Your task to perform on an android device: install app "Google Play Games" Image 0: 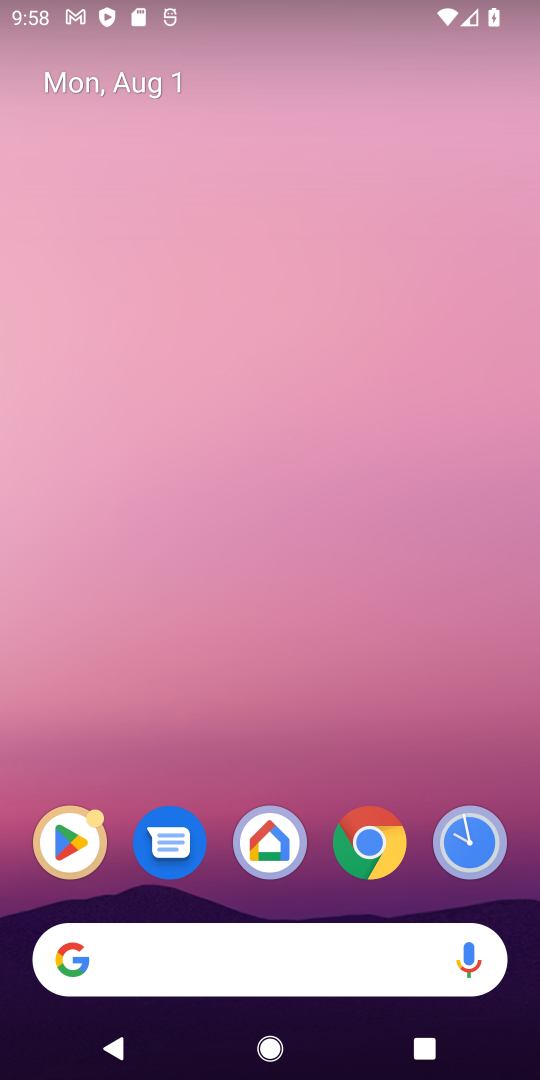
Step 0: click (62, 854)
Your task to perform on an android device: install app "Google Play Games" Image 1: 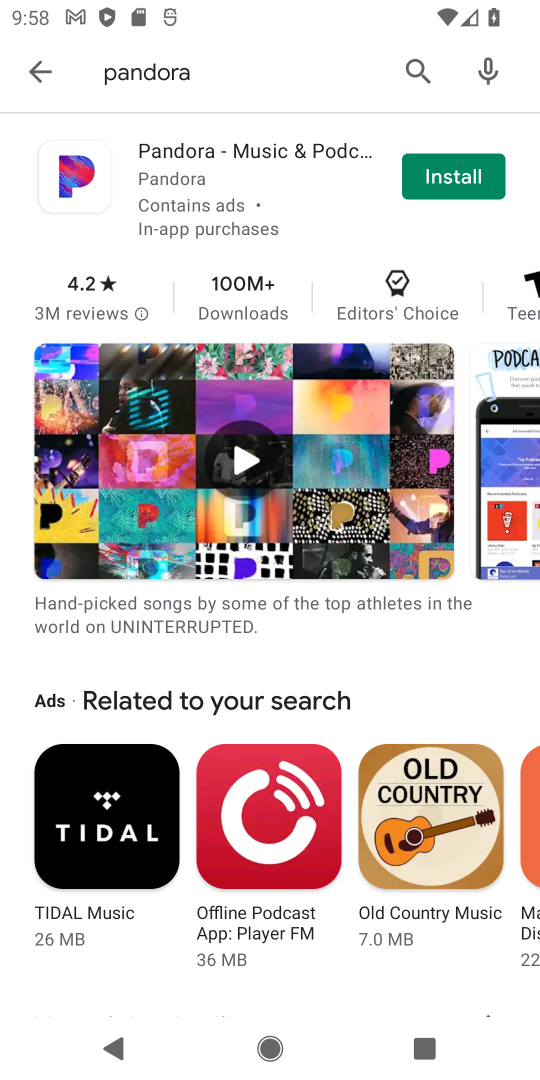
Step 1: click (414, 62)
Your task to perform on an android device: install app "Google Play Games" Image 2: 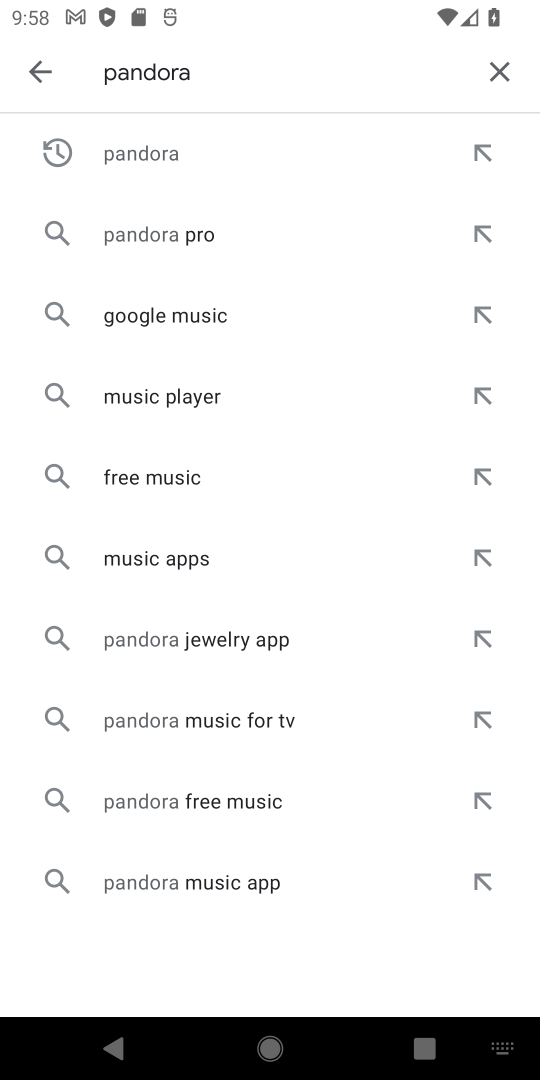
Step 2: click (483, 70)
Your task to perform on an android device: install app "Google Play Games" Image 3: 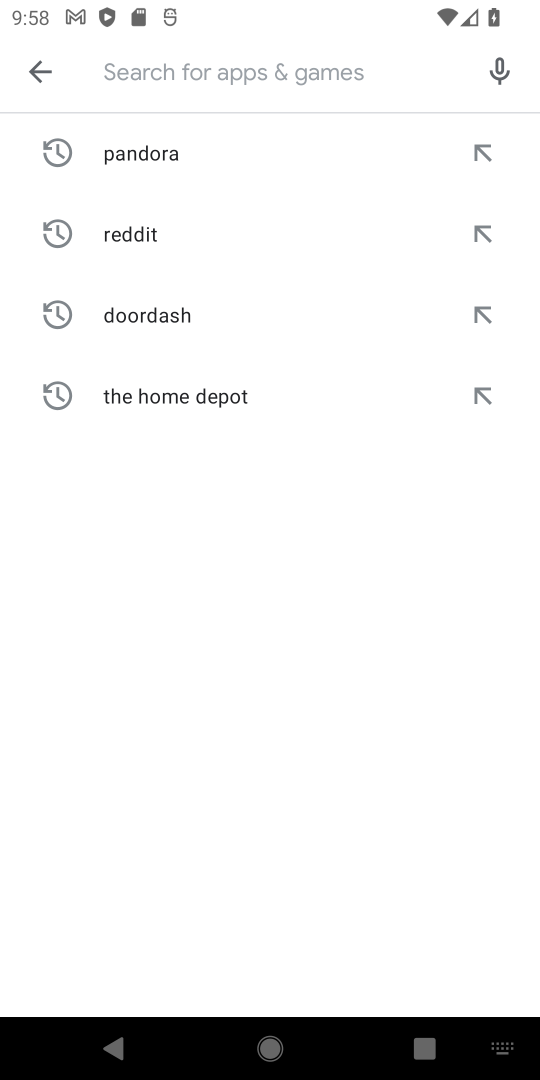
Step 3: click (280, 79)
Your task to perform on an android device: install app "Google Play Games" Image 4: 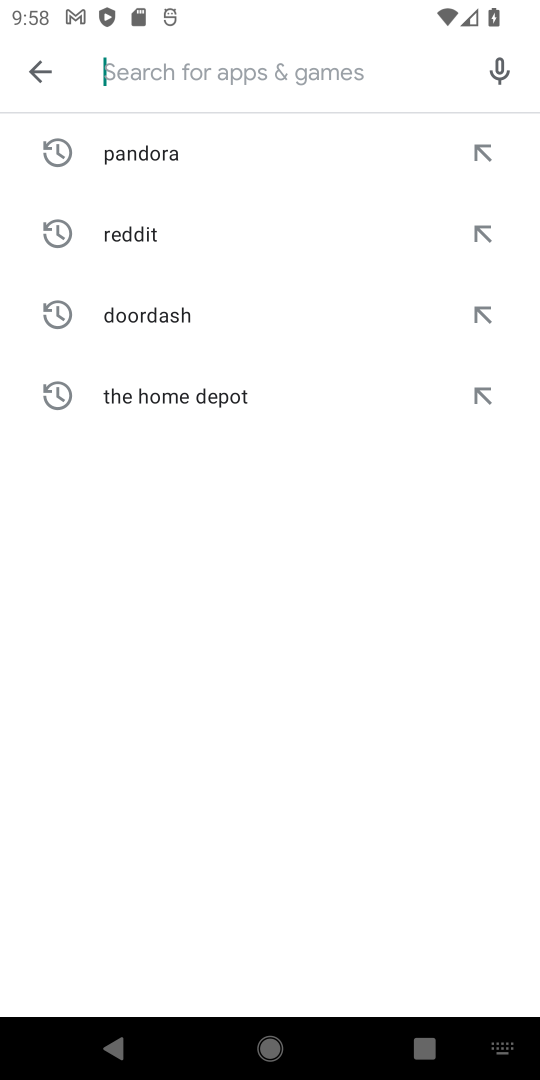
Step 4: type "google play games"
Your task to perform on an android device: install app "Google Play Games" Image 5: 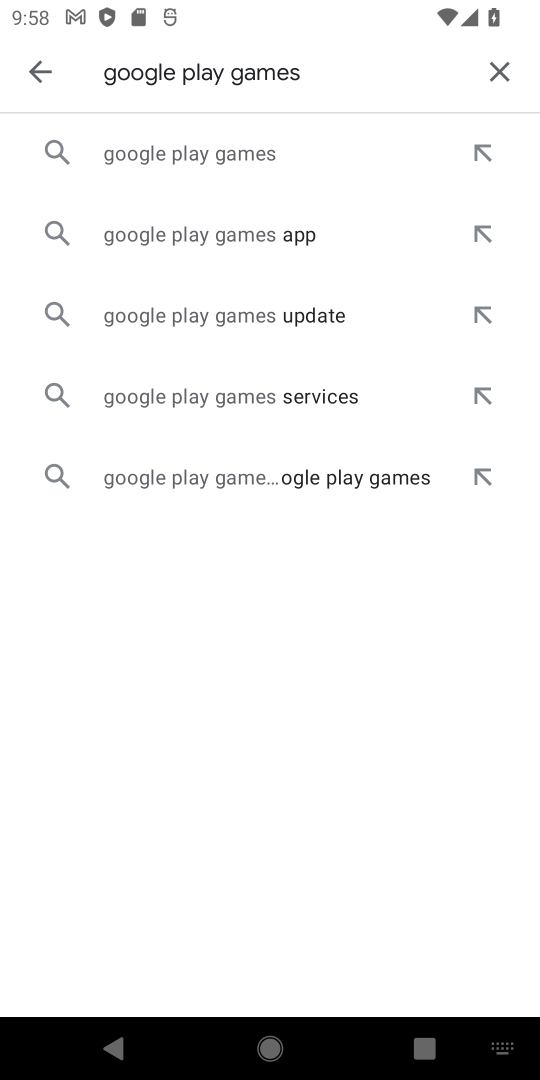
Step 5: click (213, 151)
Your task to perform on an android device: install app "Google Play Games" Image 6: 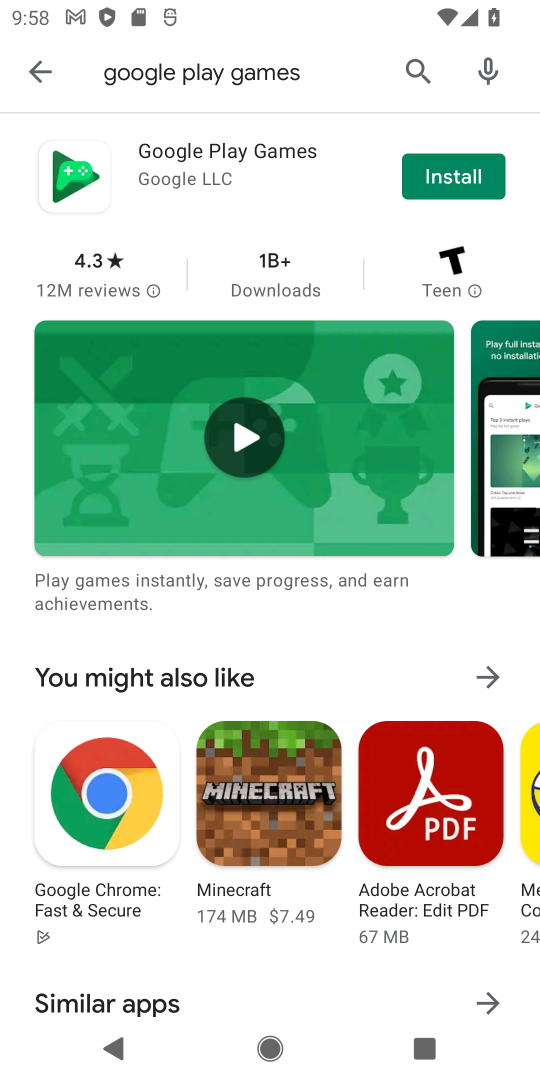
Step 6: click (432, 176)
Your task to perform on an android device: install app "Google Play Games" Image 7: 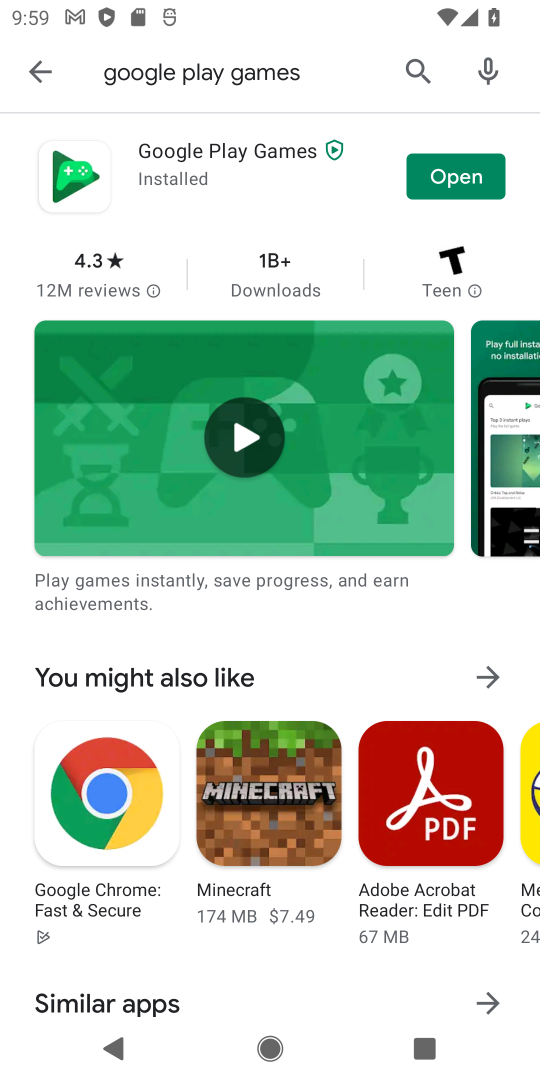
Step 7: task complete